Your task to perform on an android device: Search for hotels in Los Angeles Image 0: 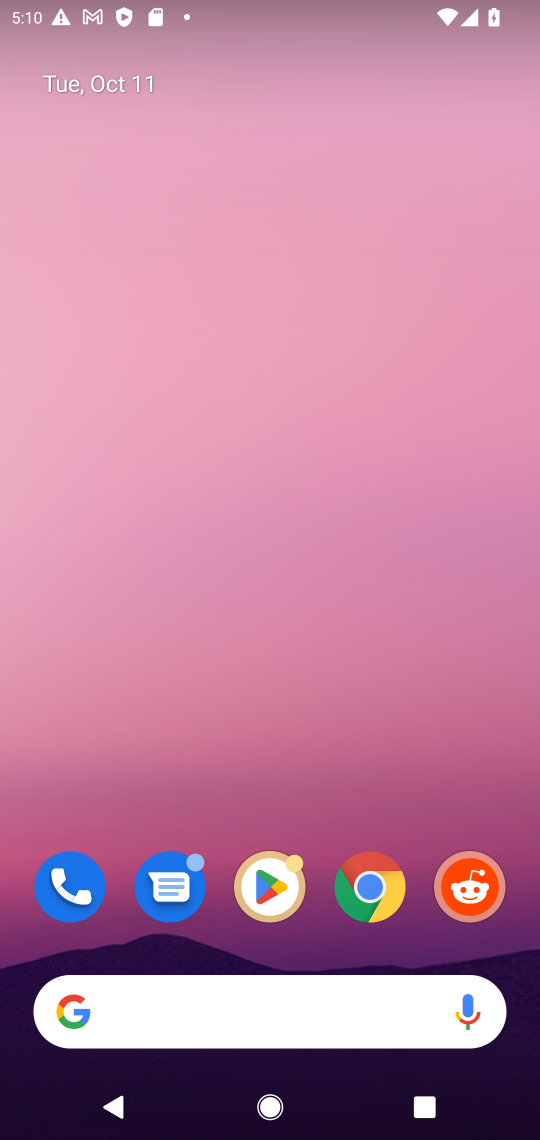
Step 0: click (239, 1004)
Your task to perform on an android device: Search for hotels in Los Angeles Image 1: 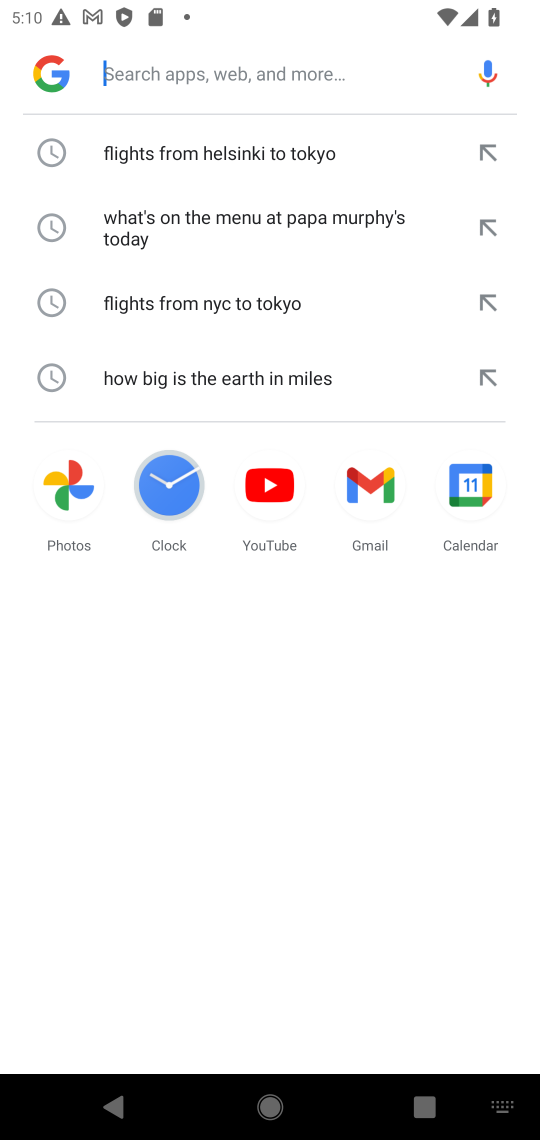
Step 1: type "hotels in Los Angeles"
Your task to perform on an android device: Search for hotels in Los Angeles Image 2: 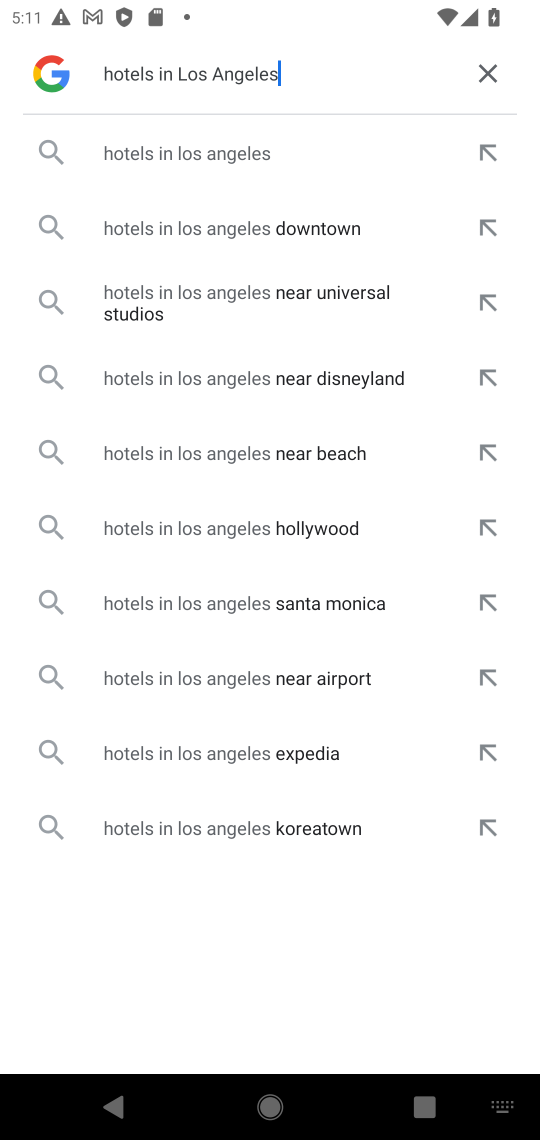
Step 2: click (212, 152)
Your task to perform on an android device: Search for hotels in Los Angeles Image 3: 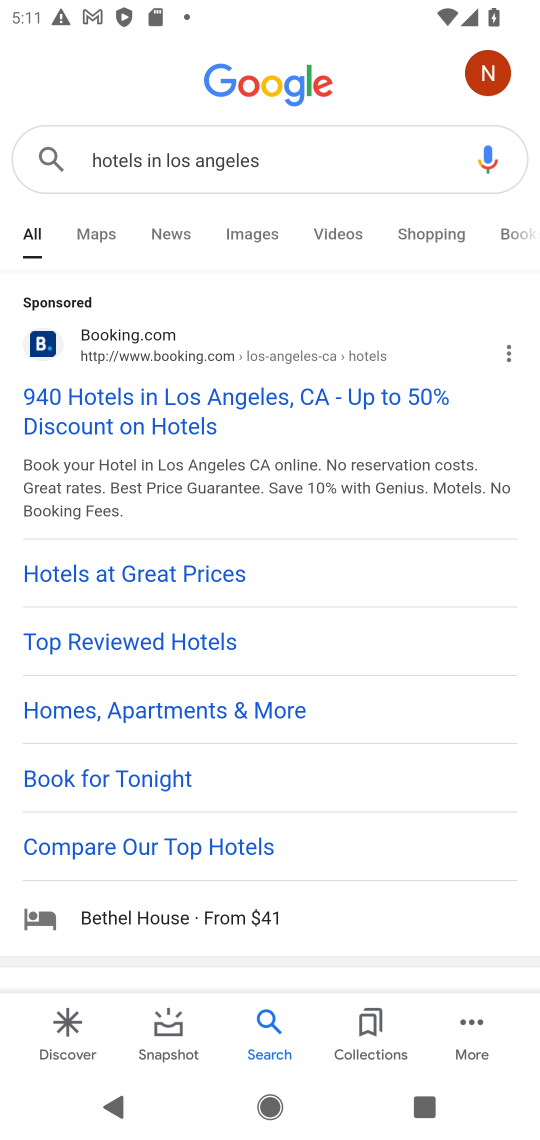
Step 3: click (233, 329)
Your task to perform on an android device: Search for hotels in Los Angeles Image 4: 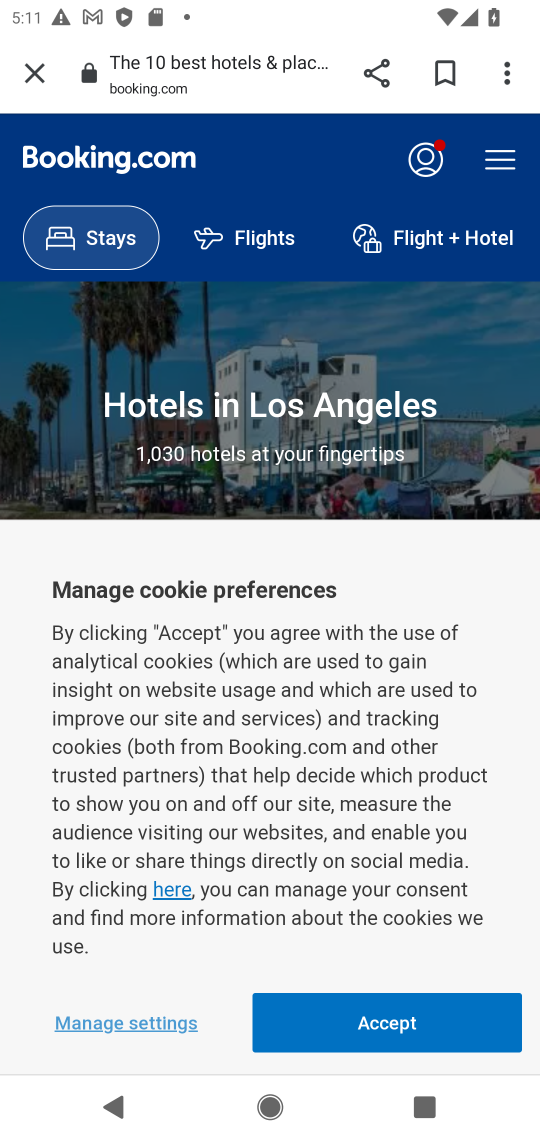
Step 4: click (323, 1030)
Your task to perform on an android device: Search for hotels in Los Angeles Image 5: 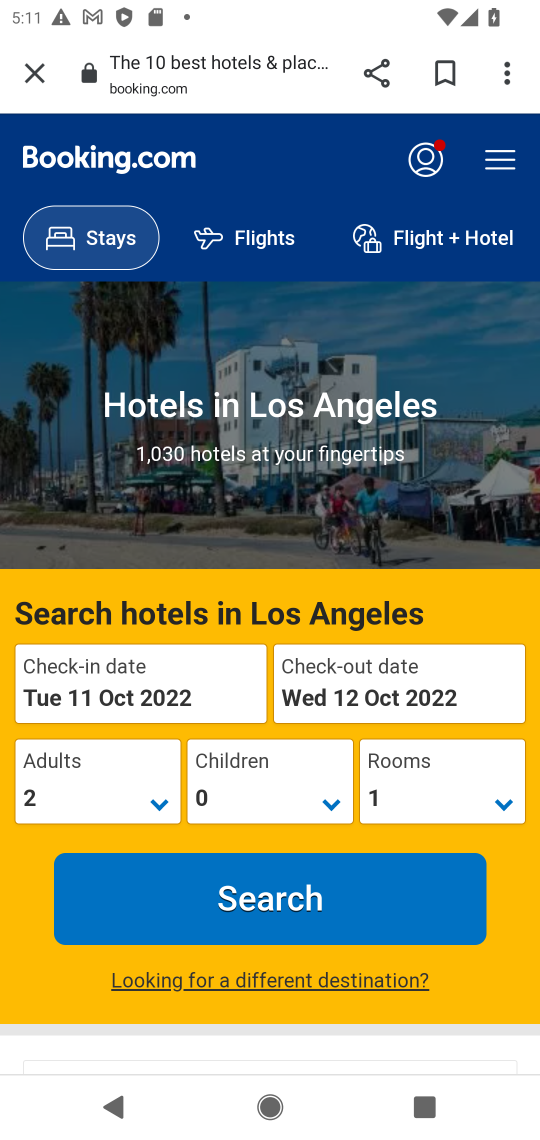
Step 5: drag from (469, 904) to (262, 216)
Your task to perform on an android device: Search for hotels in Los Angeles Image 6: 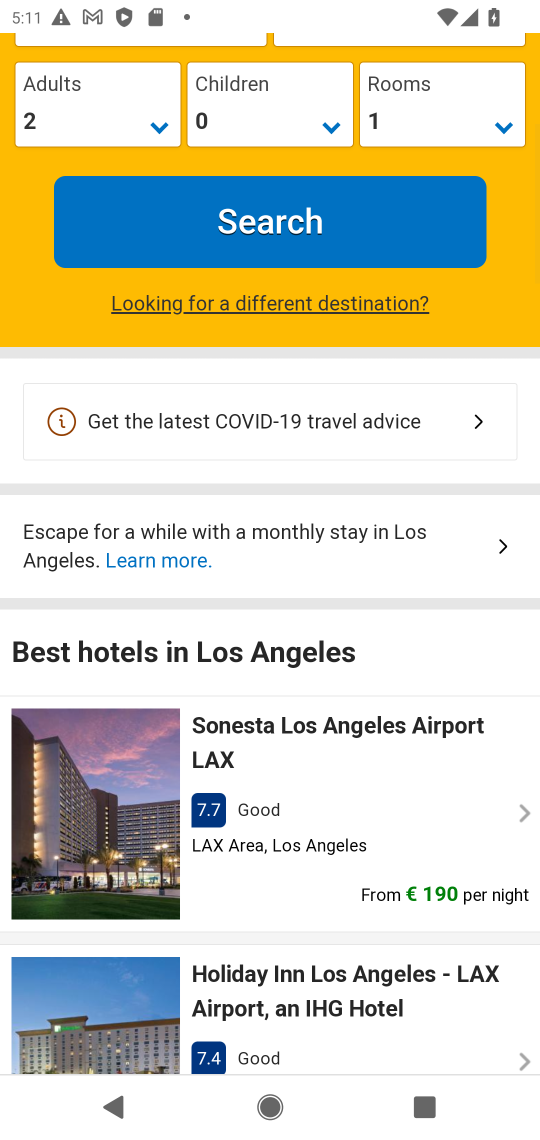
Step 6: click (317, 1009)
Your task to perform on an android device: Search for hotels in Los Angeles Image 7: 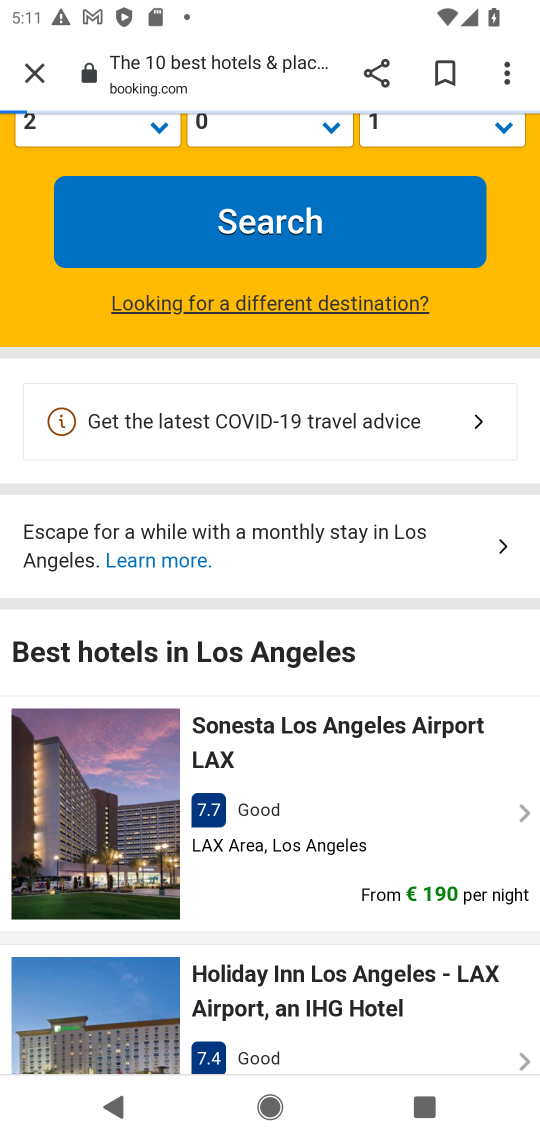
Step 7: task complete